Your task to perform on an android device: Open accessibility settings Image 0: 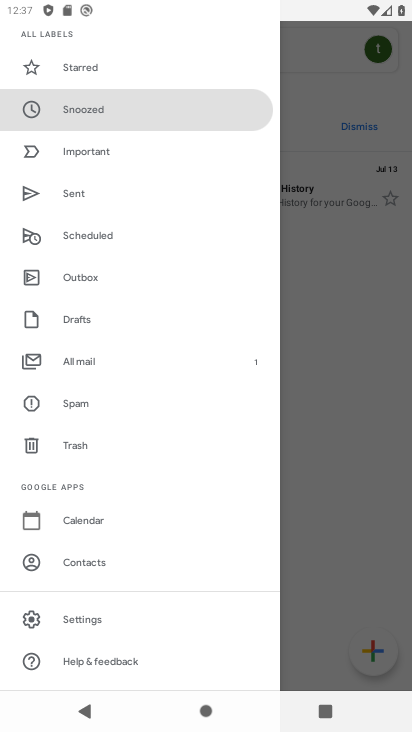
Step 0: press home button
Your task to perform on an android device: Open accessibility settings Image 1: 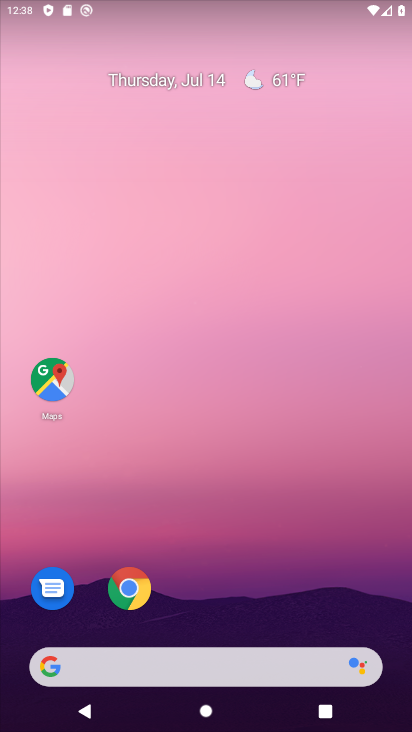
Step 1: drag from (287, 678) to (291, 485)
Your task to perform on an android device: Open accessibility settings Image 2: 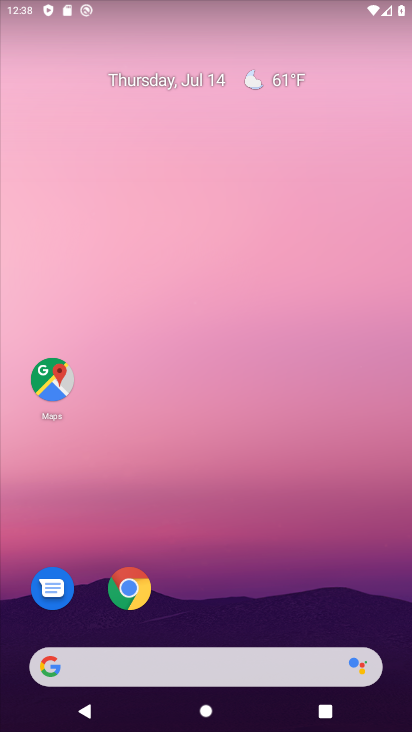
Step 2: drag from (183, 604) to (225, 248)
Your task to perform on an android device: Open accessibility settings Image 3: 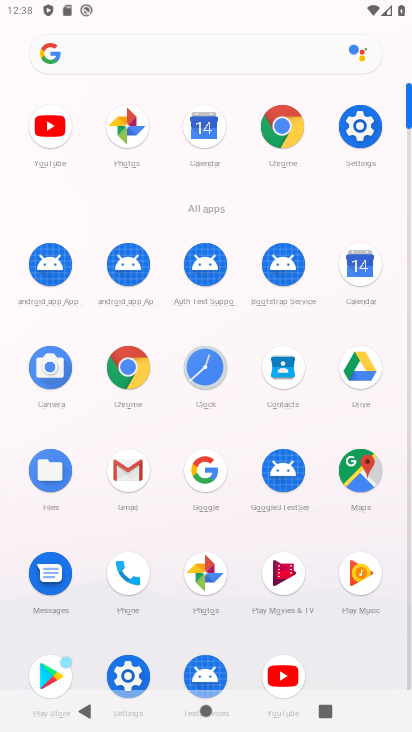
Step 3: click (365, 119)
Your task to perform on an android device: Open accessibility settings Image 4: 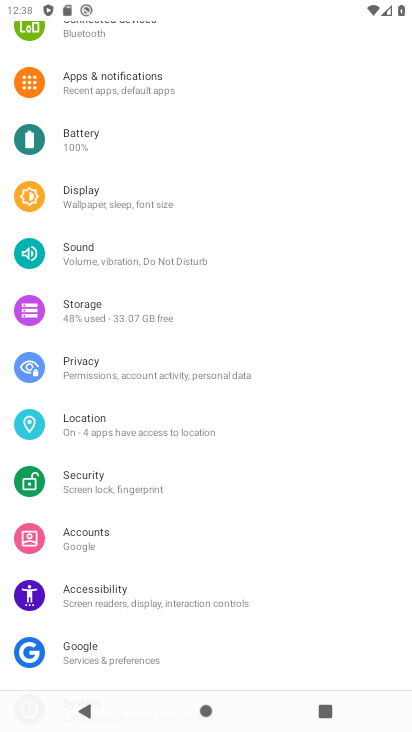
Step 4: click (119, 601)
Your task to perform on an android device: Open accessibility settings Image 5: 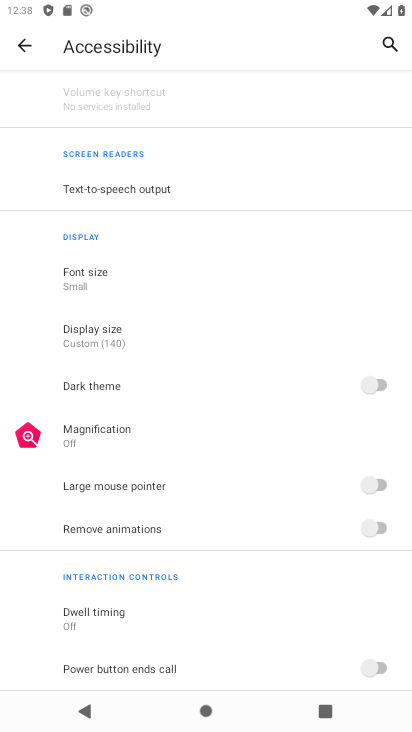
Step 5: task complete